Your task to perform on an android device: toggle javascript in the chrome app Image 0: 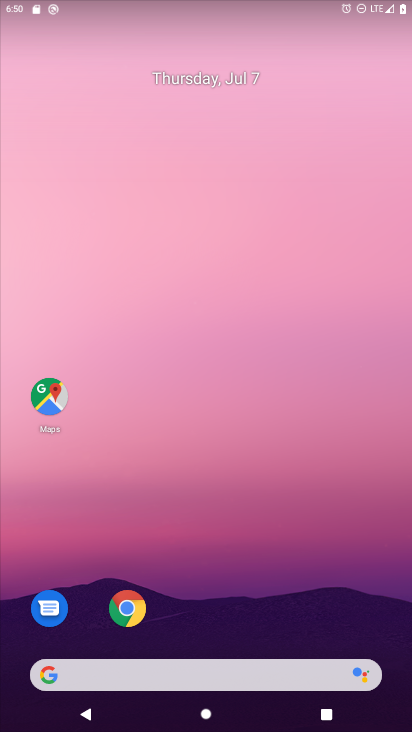
Step 0: click (113, 599)
Your task to perform on an android device: toggle javascript in the chrome app Image 1: 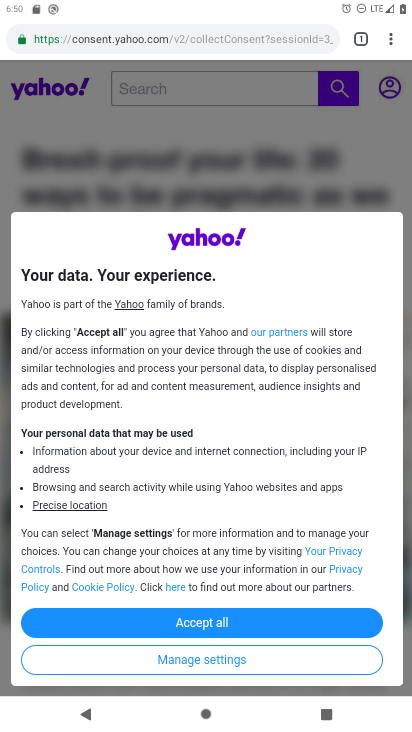
Step 1: drag from (390, 45) to (254, 505)
Your task to perform on an android device: toggle javascript in the chrome app Image 2: 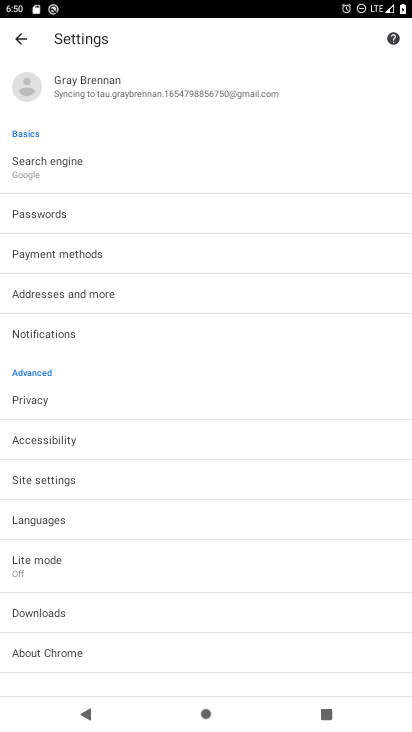
Step 2: click (65, 485)
Your task to perform on an android device: toggle javascript in the chrome app Image 3: 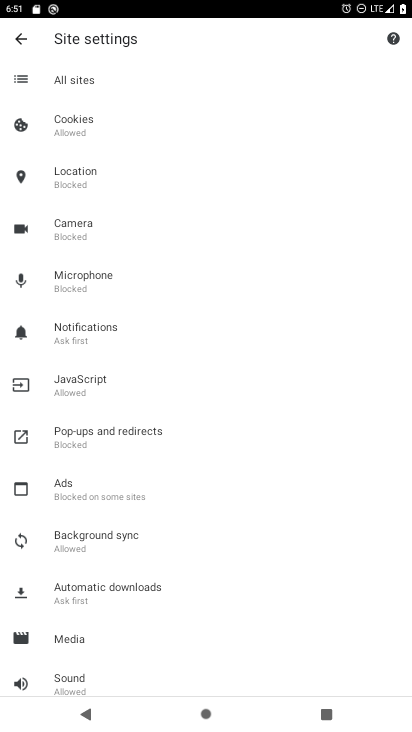
Step 3: click (67, 379)
Your task to perform on an android device: toggle javascript in the chrome app Image 4: 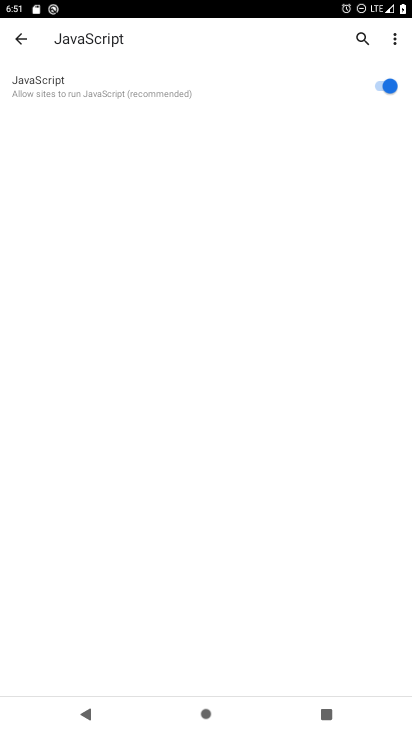
Step 4: click (265, 83)
Your task to perform on an android device: toggle javascript in the chrome app Image 5: 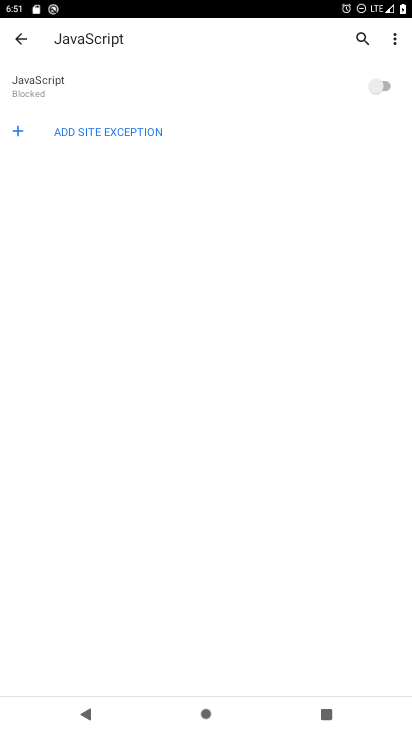
Step 5: task complete